Your task to perform on an android device: Go to ESPN.com Image 0: 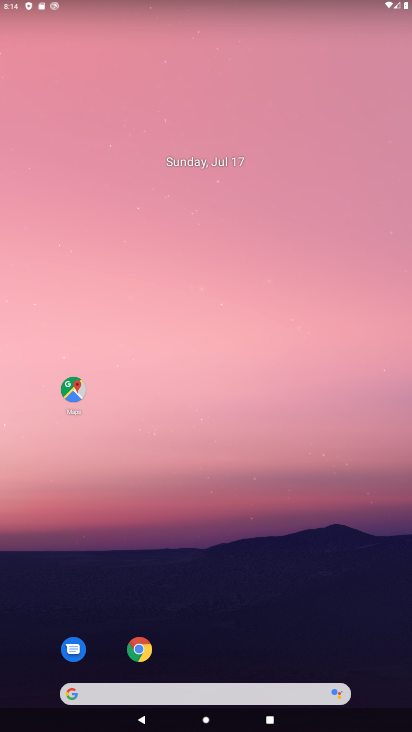
Step 0: drag from (199, 685) to (181, 88)
Your task to perform on an android device: Go to ESPN.com Image 1: 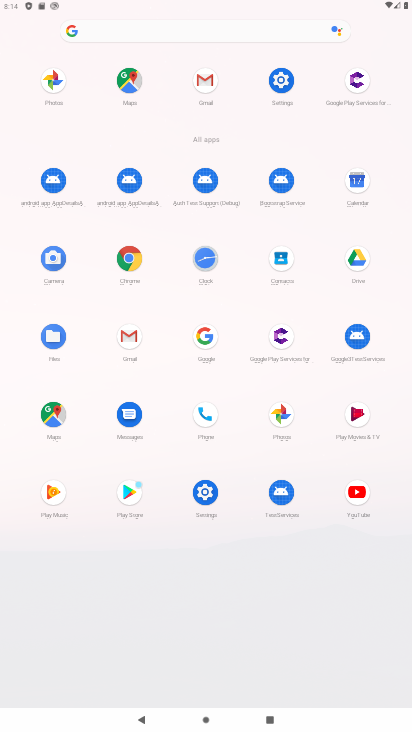
Step 1: click (212, 339)
Your task to perform on an android device: Go to ESPN.com Image 2: 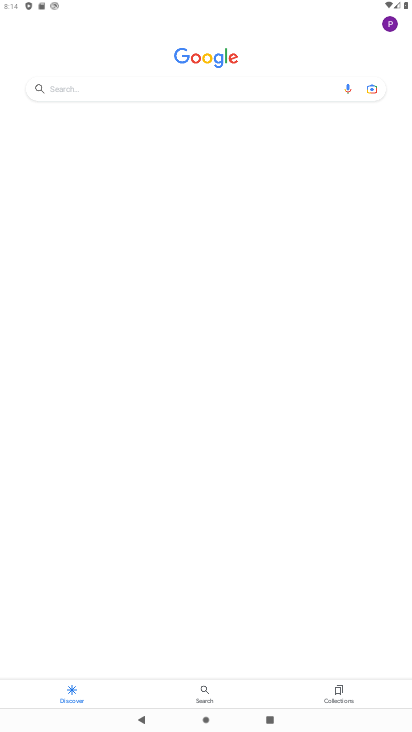
Step 2: click (136, 83)
Your task to perform on an android device: Go to ESPN.com Image 3: 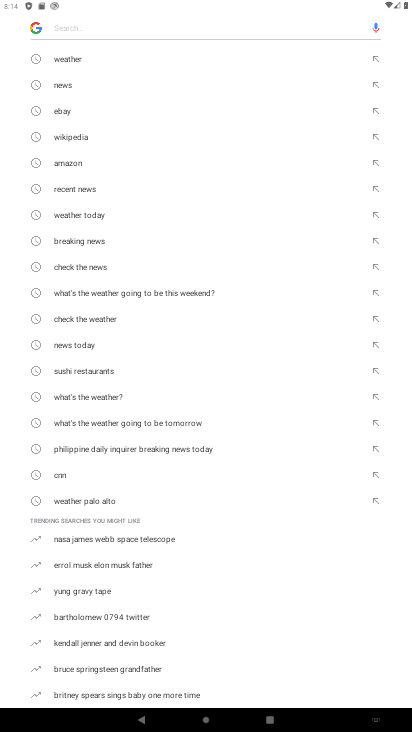
Step 3: type "espn.com"
Your task to perform on an android device: Go to ESPN.com Image 4: 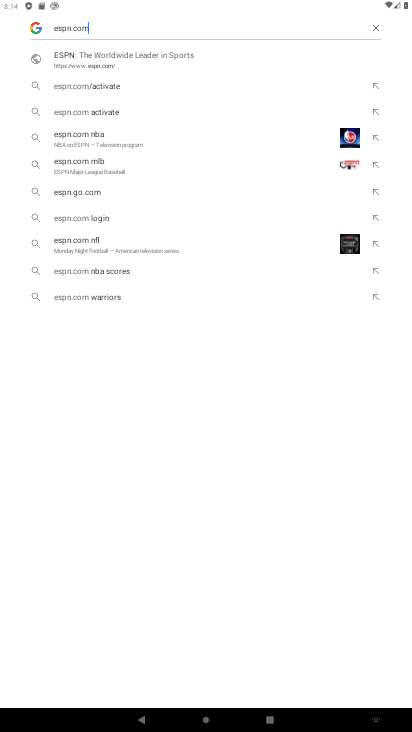
Step 4: click (100, 59)
Your task to perform on an android device: Go to ESPN.com Image 5: 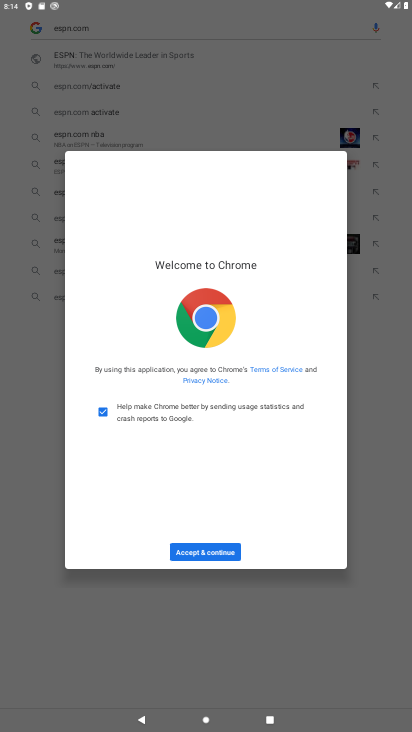
Step 5: click (234, 552)
Your task to perform on an android device: Go to ESPN.com Image 6: 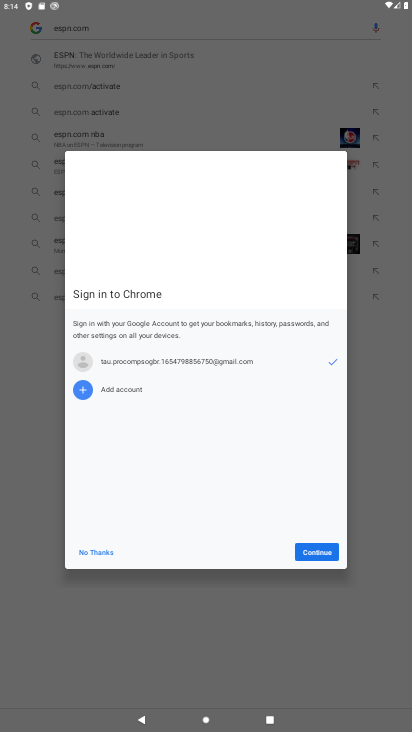
Step 6: click (298, 550)
Your task to perform on an android device: Go to ESPN.com Image 7: 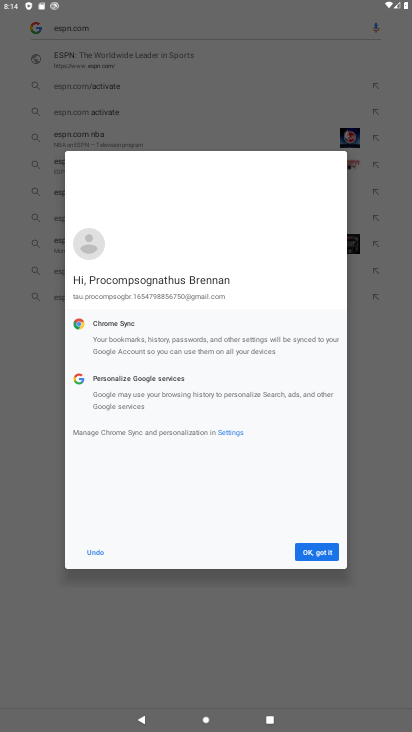
Step 7: click (312, 553)
Your task to perform on an android device: Go to ESPN.com Image 8: 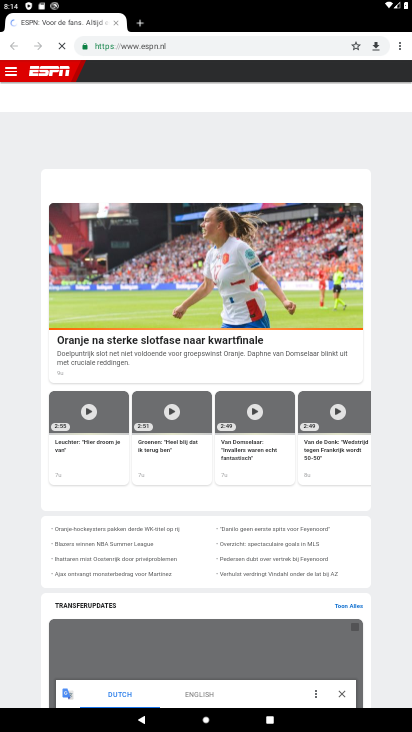
Step 8: task complete